Your task to perform on an android device: change timer sound Image 0: 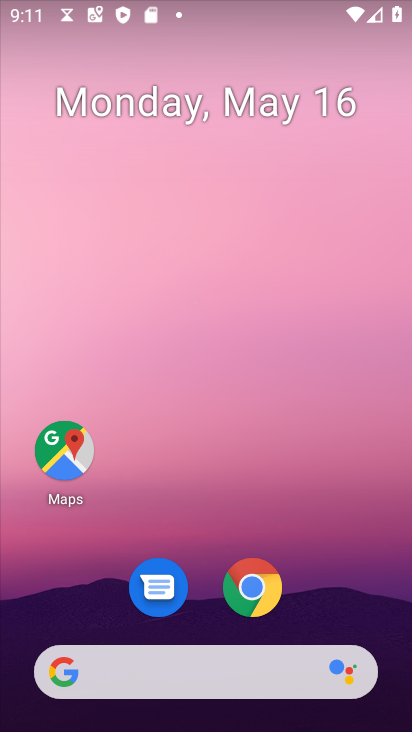
Step 0: drag from (324, 617) to (248, 212)
Your task to perform on an android device: change timer sound Image 1: 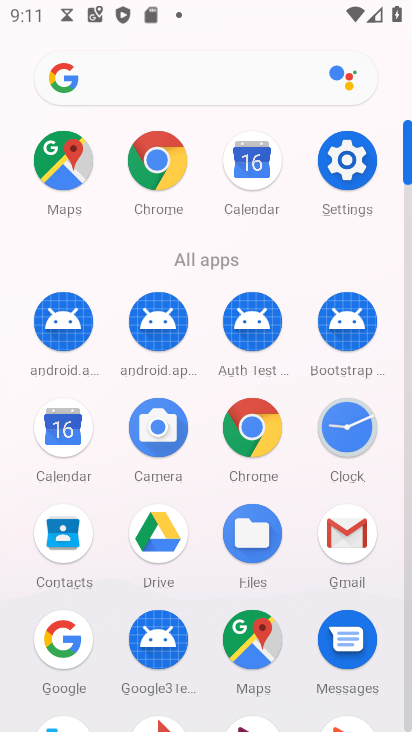
Step 1: click (348, 438)
Your task to perform on an android device: change timer sound Image 2: 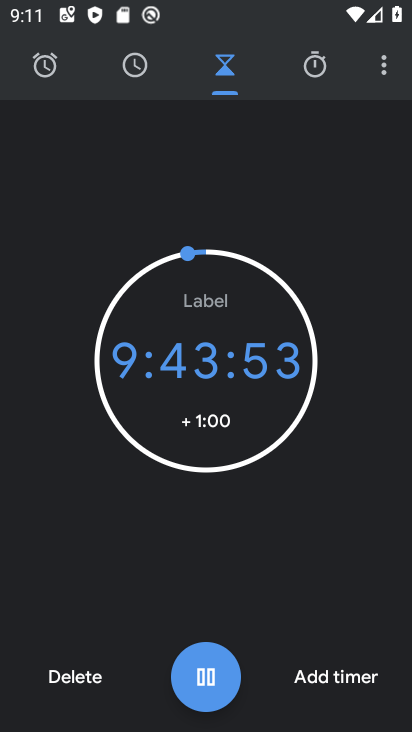
Step 2: click (384, 70)
Your task to perform on an android device: change timer sound Image 3: 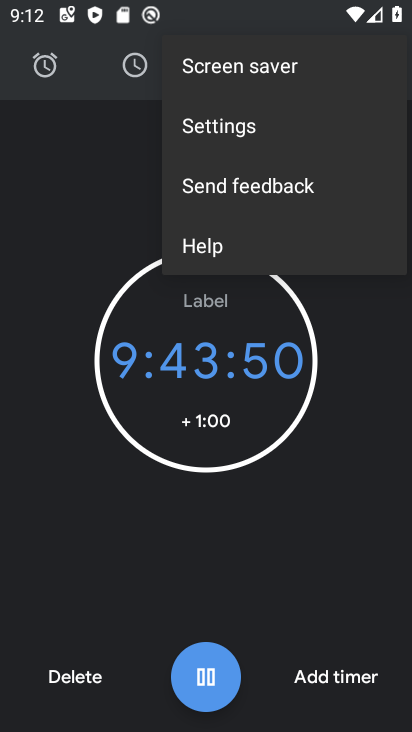
Step 3: click (354, 125)
Your task to perform on an android device: change timer sound Image 4: 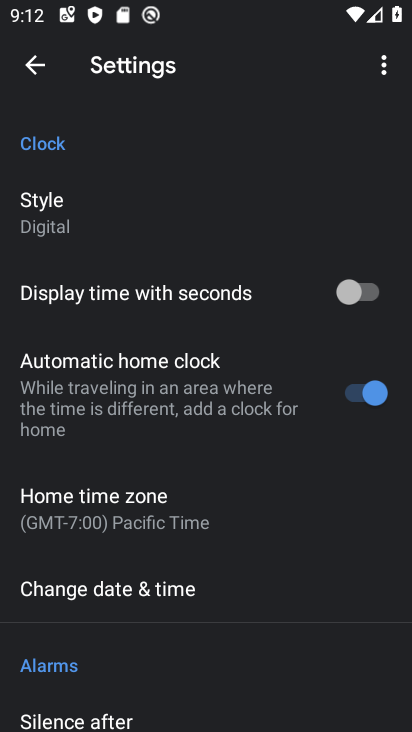
Step 4: drag from (267, 598) to (252, 311)
Your task to perform on an android device: change timer sound Image 5: 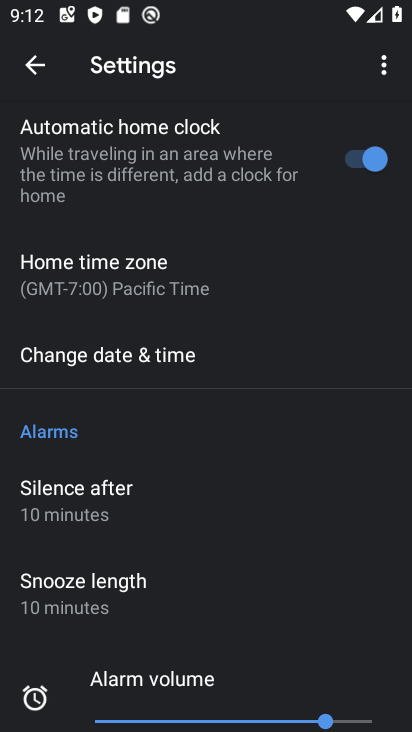
Step 5: drag from (266, 628) to (205, 279)
Your task to perform on an android device: change timer sound Image 6: 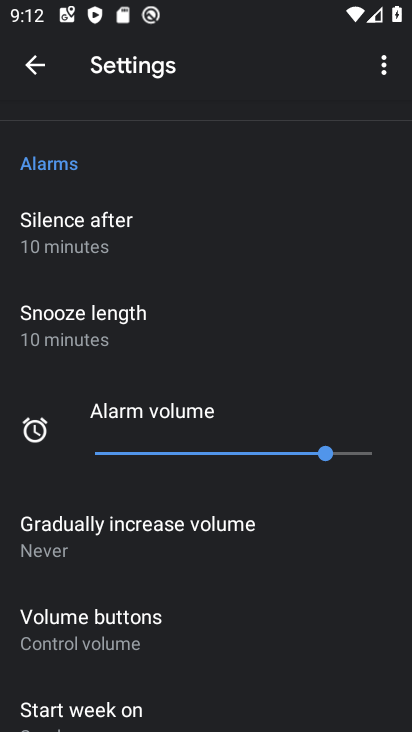
Step 6: drag from (246, 618) to (230, 344)
Your task to perform on an android device: change timer sound Image 7: 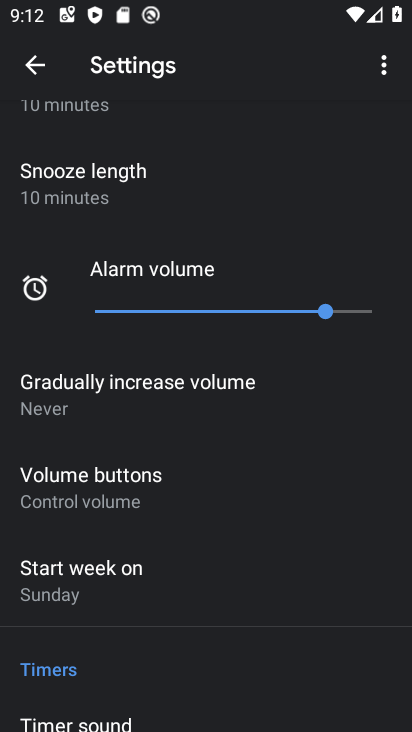
Step 7: drag from (259, 625) to (257, 324)
Your task to perform on an android device: change timer sound Image 8: 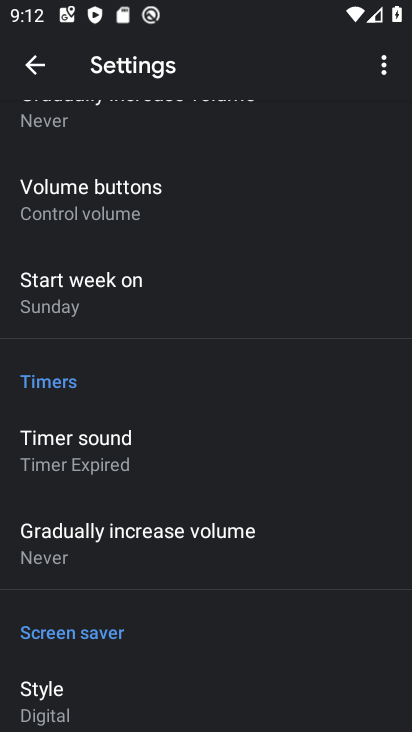
Step 8: click (251, 439)
Your task to perform on an android device: change timer sound Image 9: 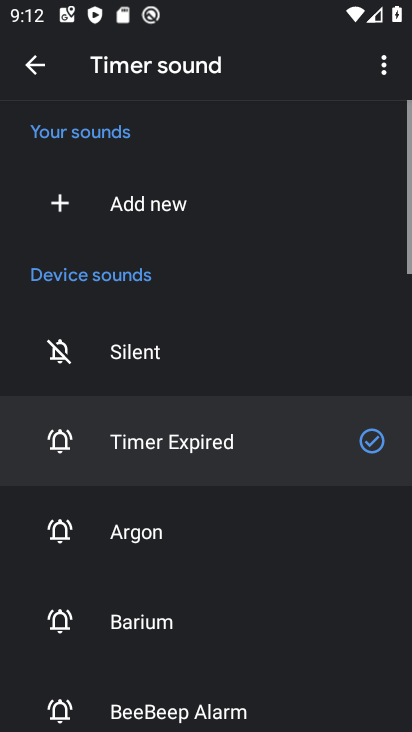
Step 9: click (230, 524)
Your task to perform on an android device: change timer sound Image 10: 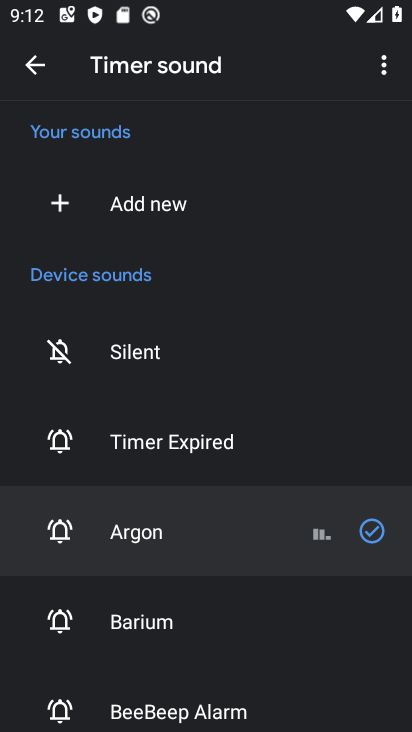
Step 10: task complete